Your task to perform on an android device: Play the last video I watched on Youtube Image 0: 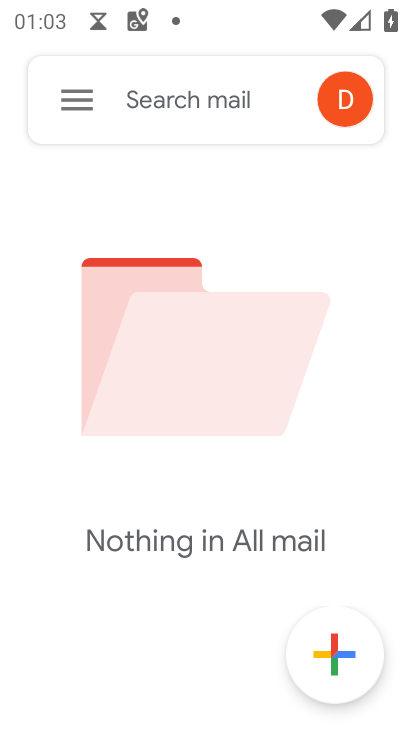
Step 0: press home button
Your task to perform on an android device: Play the last video I watched on Youtube Image 1: 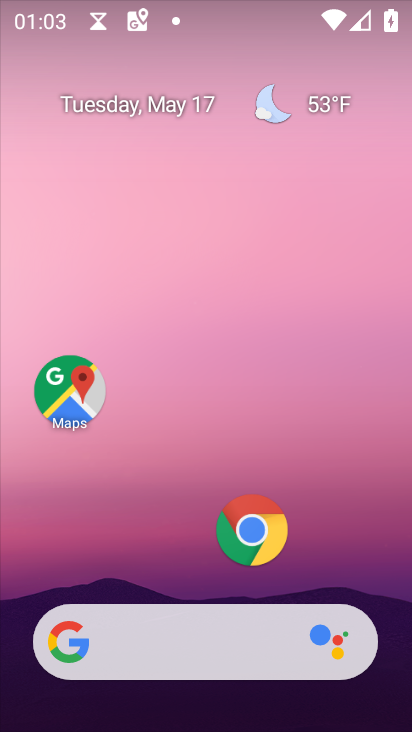
Step 1: click (252, 280)
Your task to perform on an android device: Play the last video I watched on Youtube Image 2: 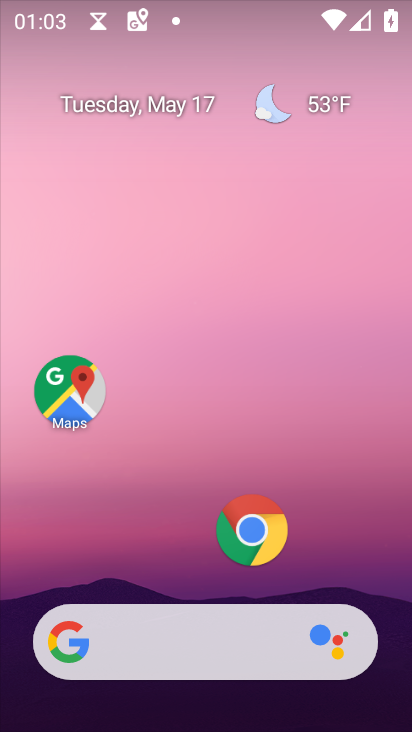
Step 2: drag from (287, 258) to (268, 146)
Your task to perform on an android device: Play the last video I watched on Youtube Image 3: 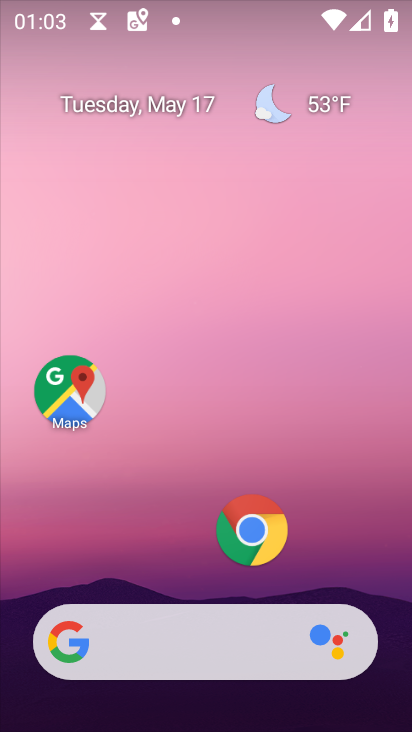
Step 3: drag from (272, 137) to (261, 103)
Your task to perform on an android device: Play the last video I watched on Youtube Image 4: 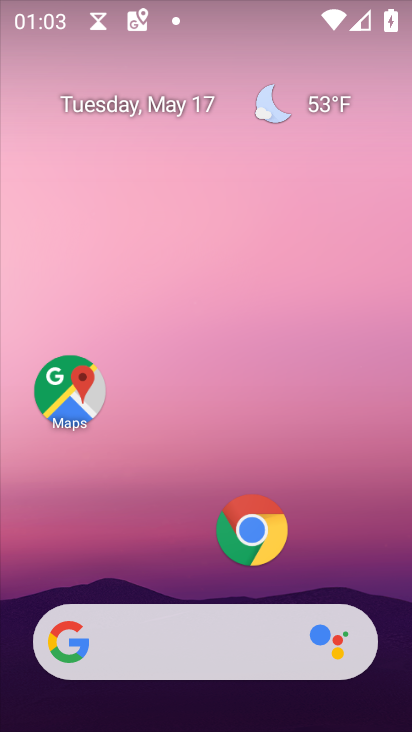
Step 4: drag from (359, 542) to (333, 239)
Your task to perform on an android device: Play the last video I watched on Youtube Image 5: 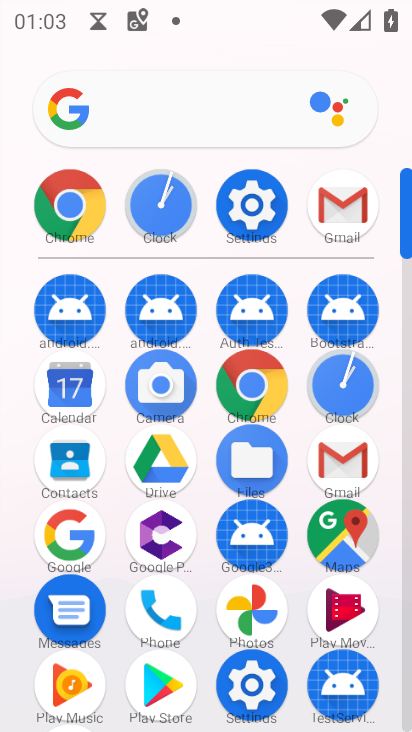
Step 5: drag from (298, 566) to (311, 168)
Your task to perform on an android device: Play the last video I watched on Youtube Image 6: 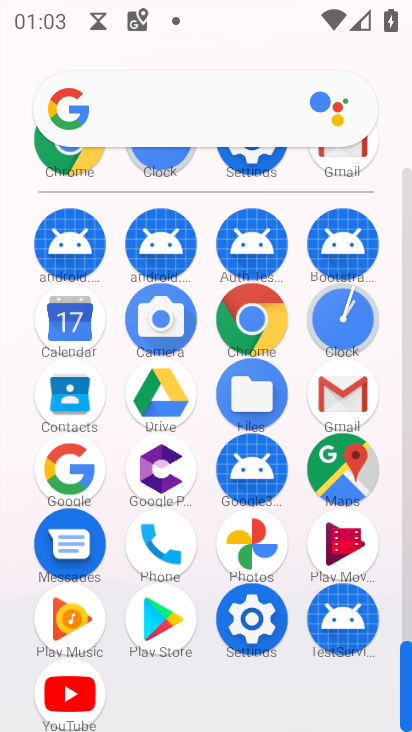
Step 6: click (56, 688)
Your task to perform on an android device: Play the last video I watched on Youtube Image 7: 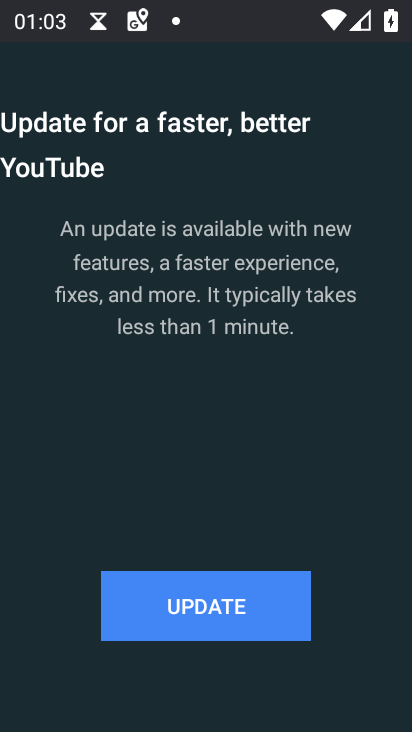
Step 7: click (152, 607)
Your task to perform on an android device: Play the last video I watched on Youtube Image 8: 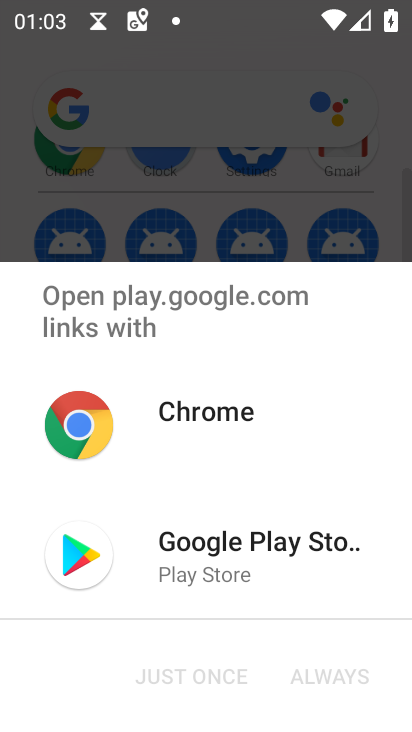
Step 8: click (165, 559)
Your task to perform on an android device: Play the last video I watched on Youtube Image 9: 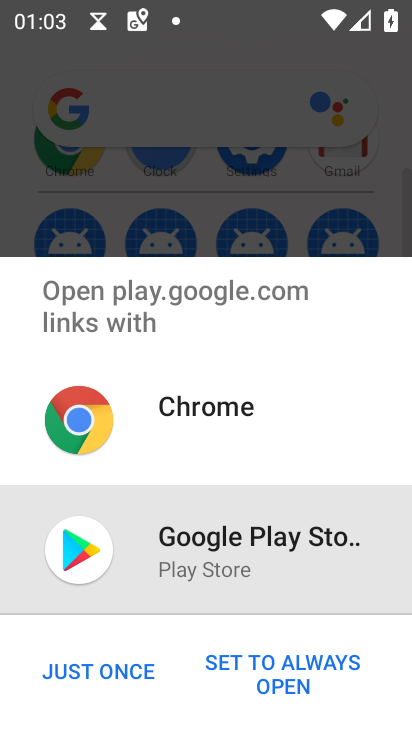
Step 9: click (256, 659)
Your task to perform on an android device: Play the last video I watched on Youtube Image 10: 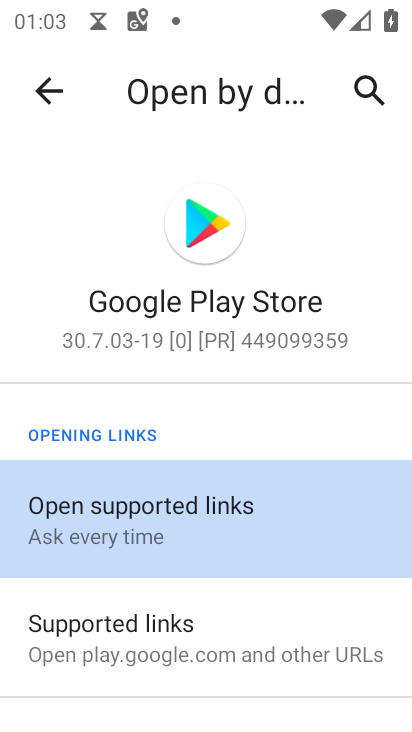
Step 10: click (119, 519)
Your task to perform on an android device: Play the last video I watched on Youtube Image 11: 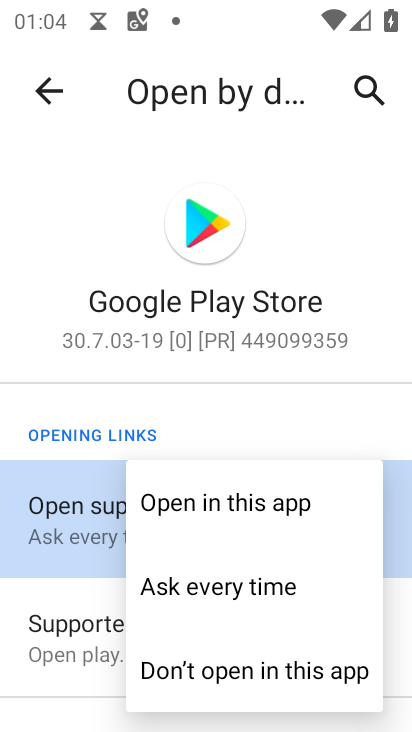
Step 11: click (218, 494)
Your task to perform on an android device: Play the last video I watched on Youtube Image 12: 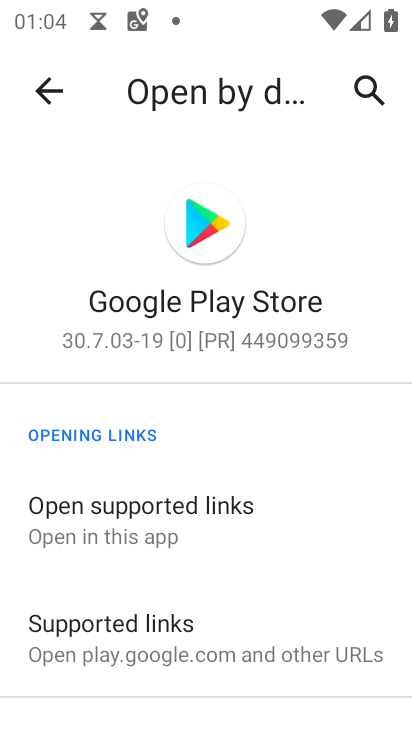
Step 12: click (194, 516)
Your task to perform on an android device: Play the last video I watched on Youtube Image 13: 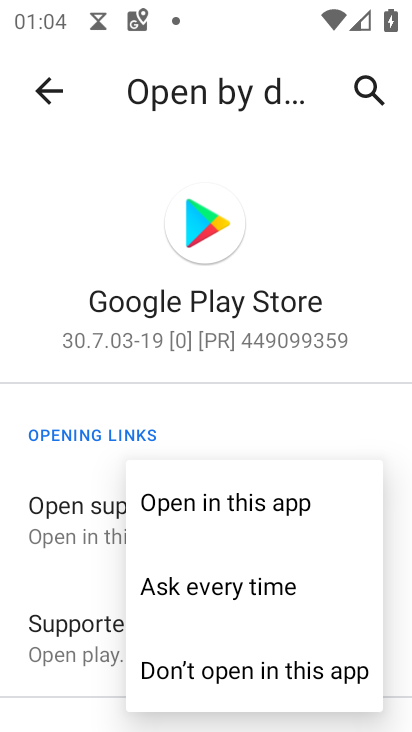
Step 13: click (218, 499)
Your task to perform on an android device: Play the last video I watched on Youtube Image 14: 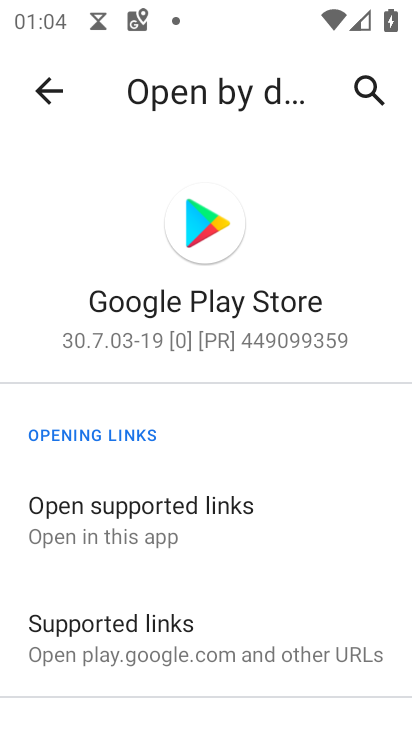
Step 14: click (218, 499)
Your task to perform on an android device: Play the last video I watched on Youtube Image 15: 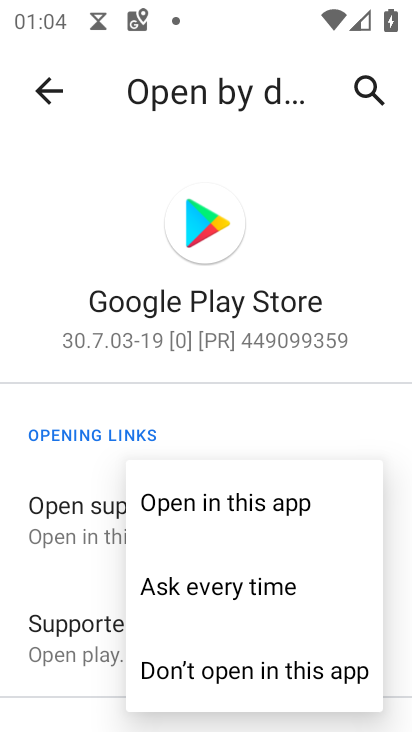
Step 15: press back button
Your task to perform on an android device: Play the last video I watched on Youtube Image 16: 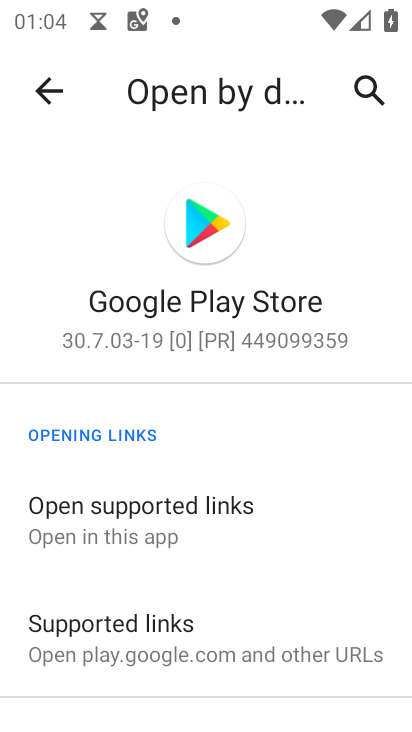
Step 16: press back button
Your task to perform on an android device: Play the last video I watched on Youtube Image 17: 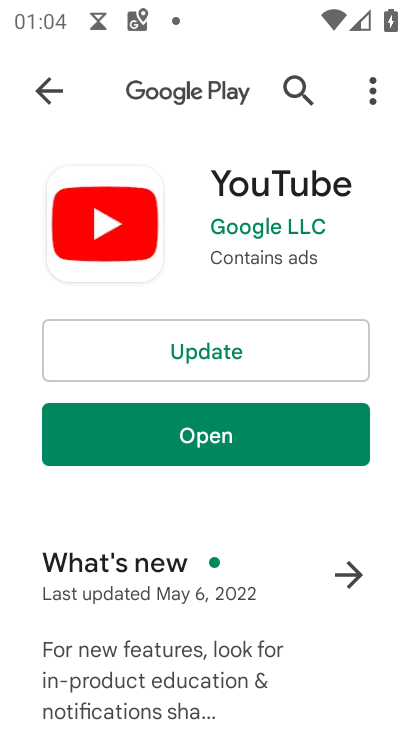
Step 17: click (197, 346)
Your task to perform on an android device: Play the last video I watched on Youtube Image 18: 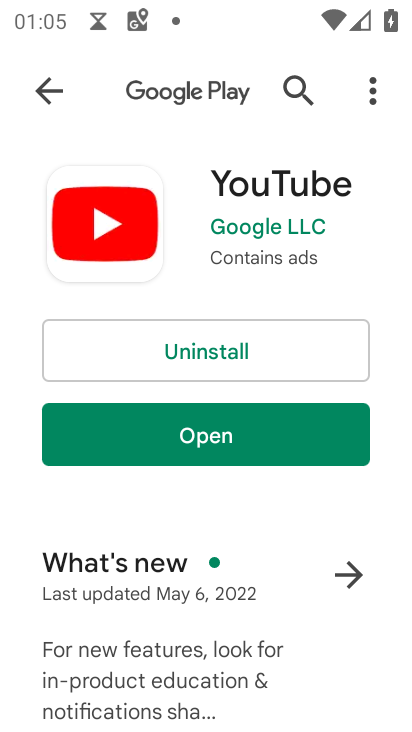
Step 18: click (213, 441)
Your task to perform on an android device: Play the last video I watched on Youtube Image 19: 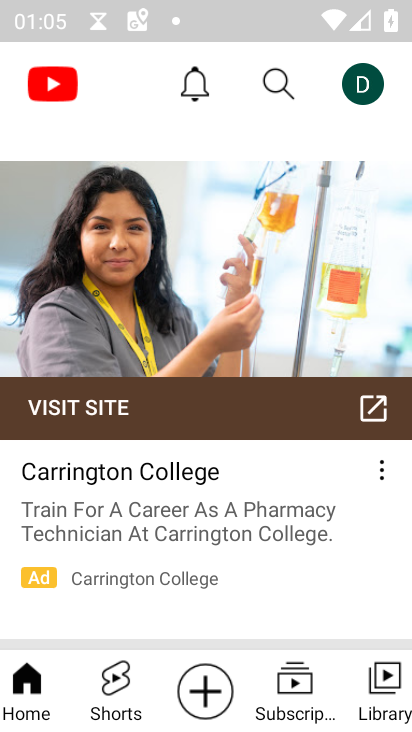
Step 19: click (376, 681)
Your task to perform on an android device: Play the last video I watched on Youtube Image 20: 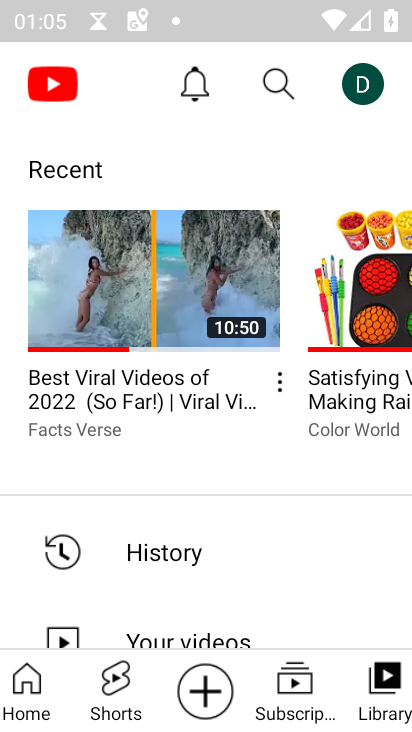
Step 20: click (68, 326)
Your task to perform on an android device: Play the last video I watched on Youtube Image 21: 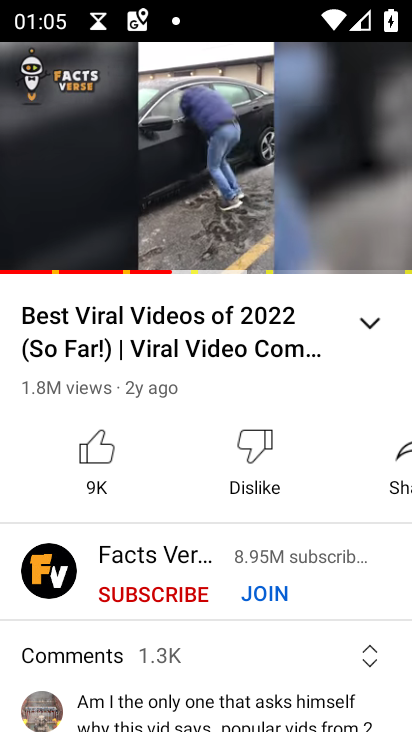
Step 21: task complete